Your task to perform on an android device: What is the news today? Image 0: 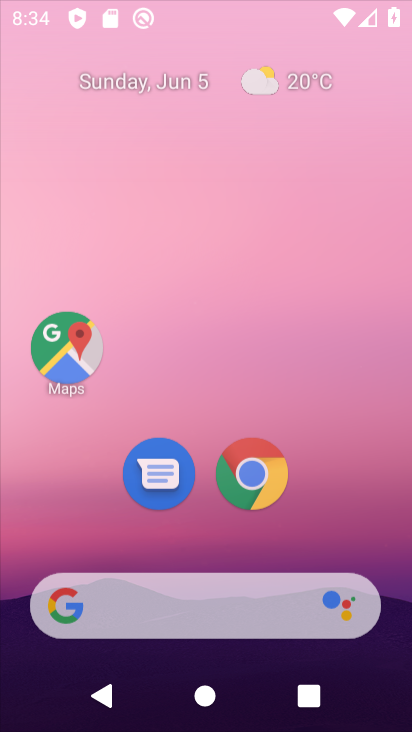
Step 0: press home button
Your task to perform on an android device: What is the news today? Image 1: 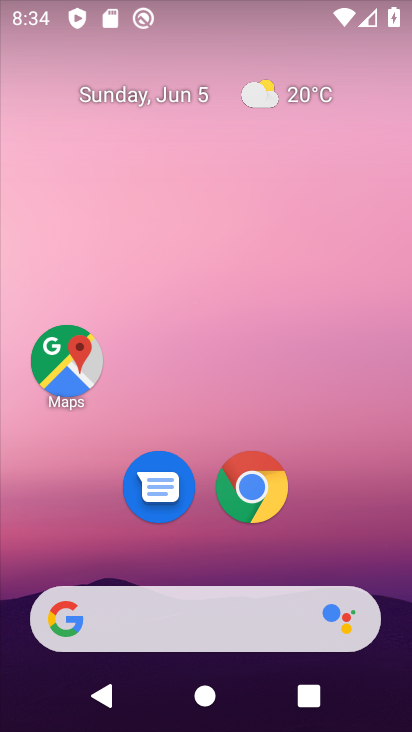
Step 1: drag from (226, 605) to (247, 243)
Your task to perform on an android device: What is the news today? Image 2: 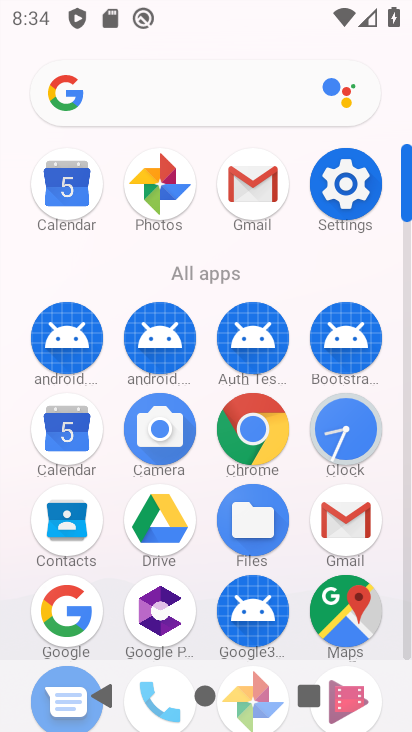
Step 2: click (73, 614)
Your task to perform on an android device: What is the news today? Image 3: 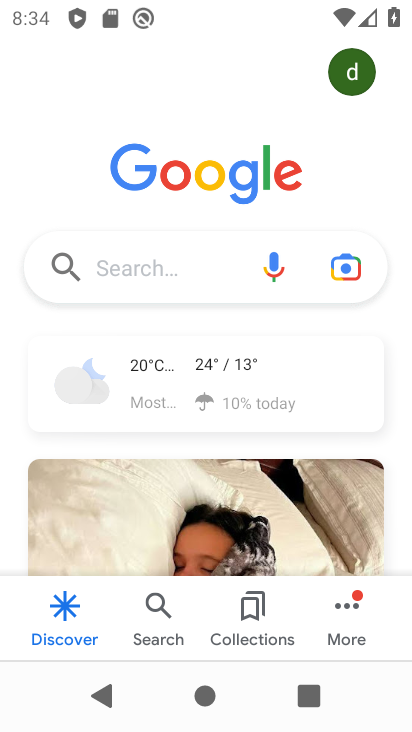
Step 3: click (191, 275)
Your task to perform on an android device: What is the news today? Image 4: 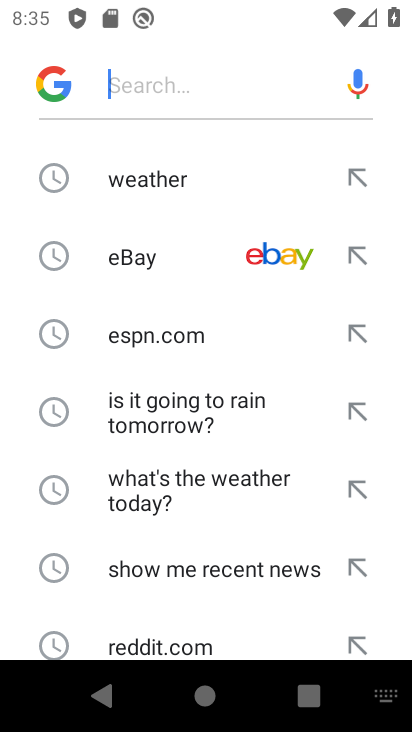
Step 4: type "news"
Your task to perform on an android device: What is the news today? Image 5: 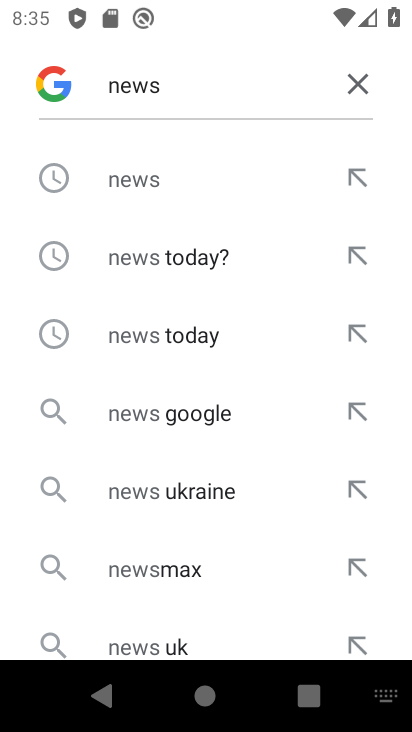
Step 5: click (218, 252)
Your task to perform on an android device: What is the news today? Image 6: 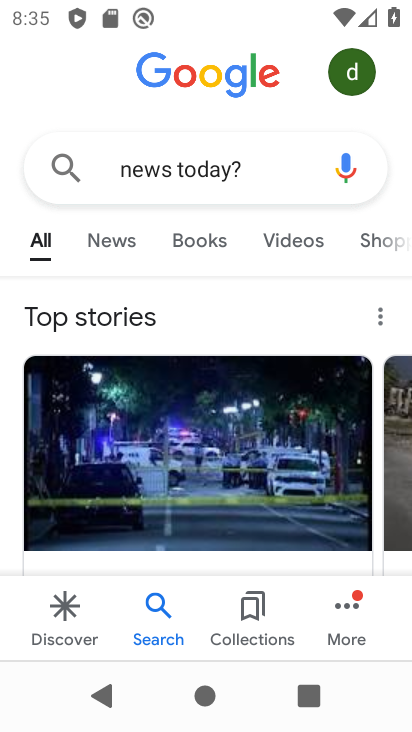
Step 6: task complete